Your task to perform on an android device: check storage Image 0: 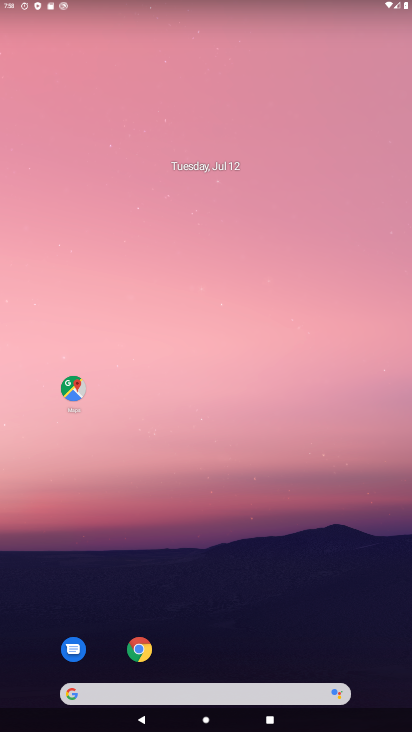
Step 0: drag from (340, 604) to (309, 159)
Your task to perform on an android device: check storage Image 1: 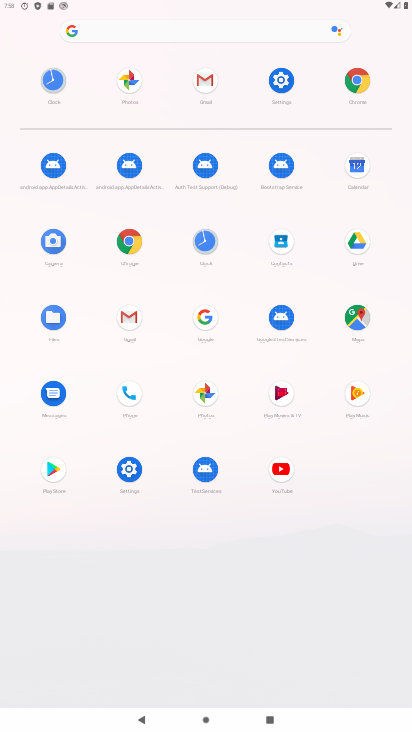
Step 1: click (289, 79)
Your task to perform on an android device: check storage Image 2: 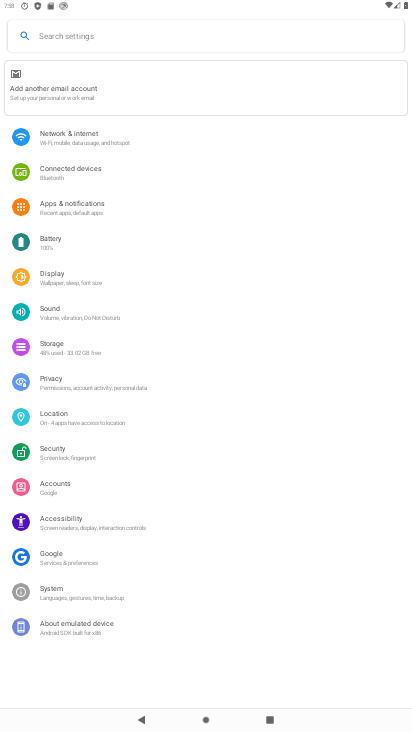
Step 2: click (53, 348)
Your task to perform on an android device: check storage Image 3: 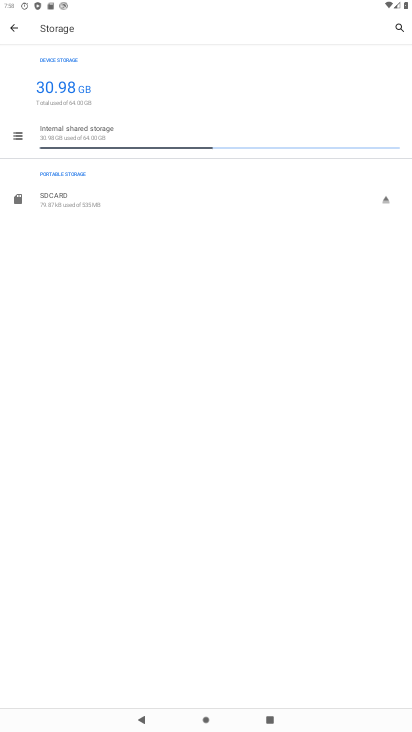
Step 3: task complete